Your task to perform on an android device: Go to Amazon Image 0: 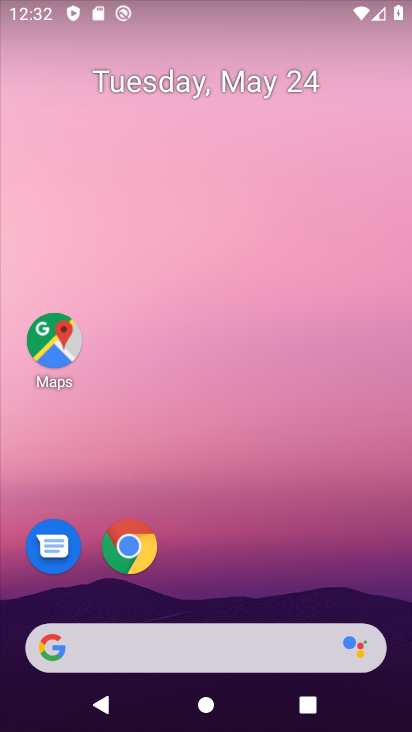
Step 0: click (121, 544)
Your task to perform on an android device: Go to Amazon Image 1: 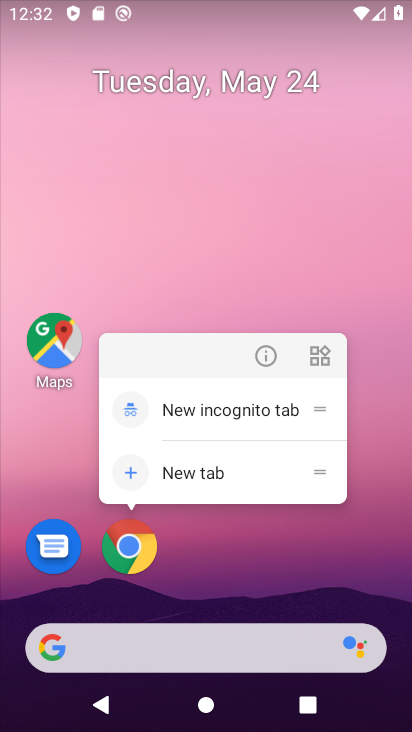
Step 1: click (122, 544)
Your task to perform on an android device: Go to Amazon Image 2: 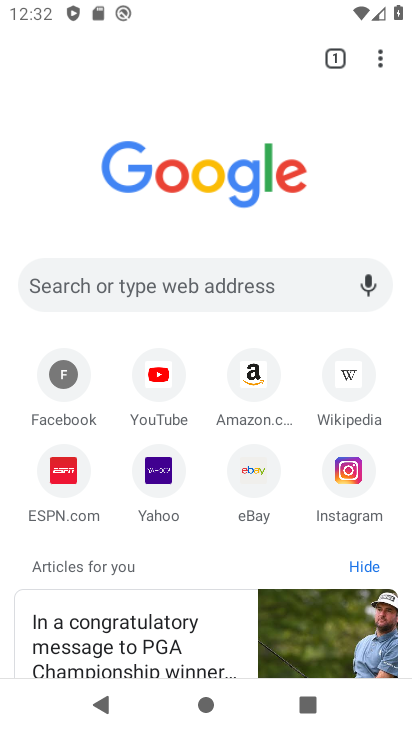
Step 2: click (245, 372)
Your task to perform on an android device: Go to Amazon Image 3: 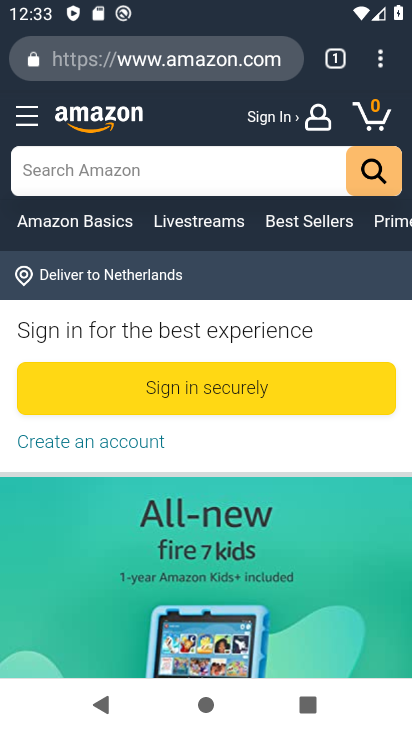
Step 3: task complete